Your task to perform on an android device: Go to display settings Image 0: 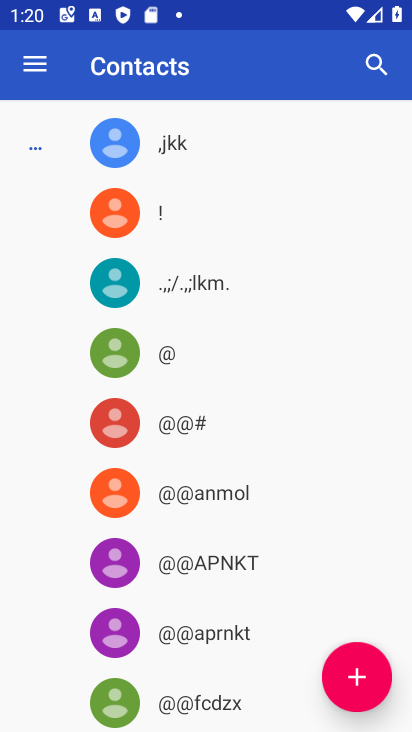
Step 0: press home button
Your task to perform on an android device: Go to display settings Image 1: 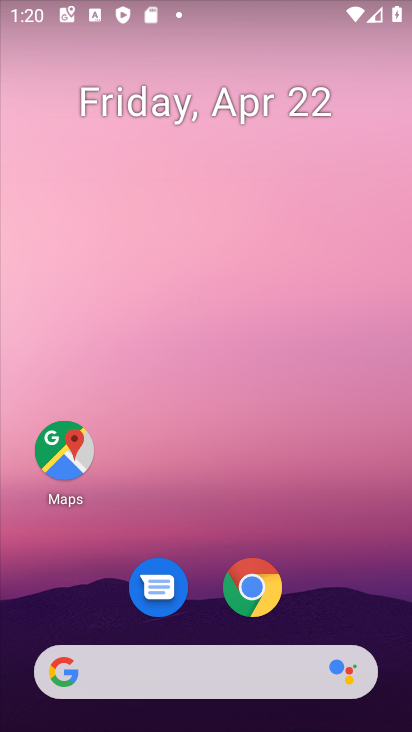
Step 1: drag from (195, 561) to (213, 277)
Your task to perform on an android device: Go to display settings Image 2: 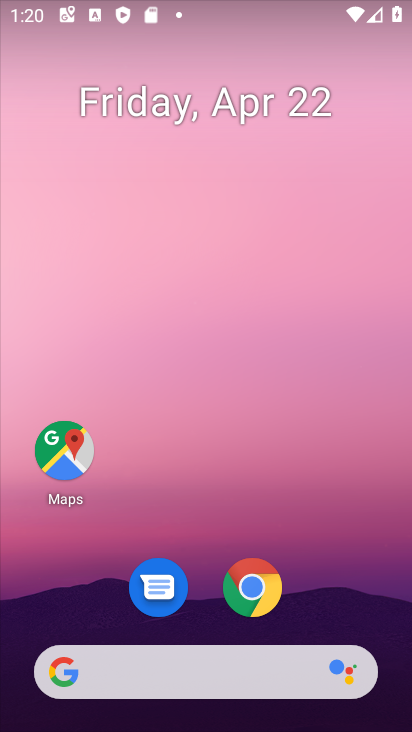
Step 2: drag from (209, 581) to (261, 224)
Your task to perform on an android device: Go to display settings Image 3: 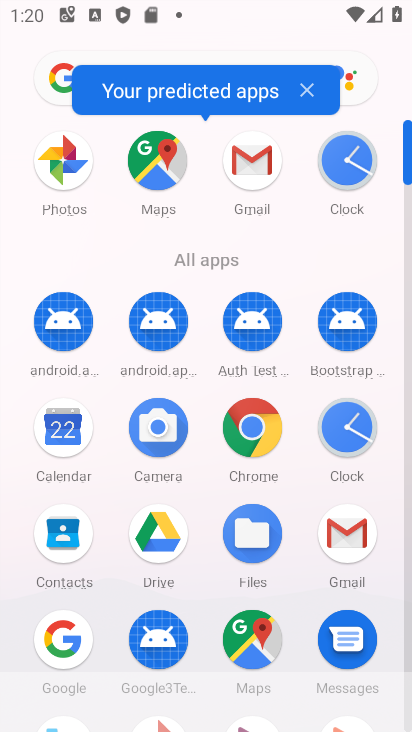
Step 3: drag from (206, 673) to (243, 324)
Your task to perform on an android device: Go to display settings Image 4: 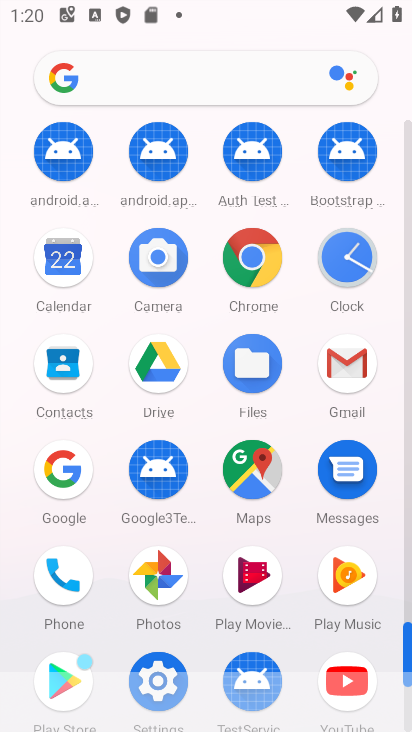
Step 4: click (148, 666)
Your task to perform on an android device: Go to display settings Image 5: 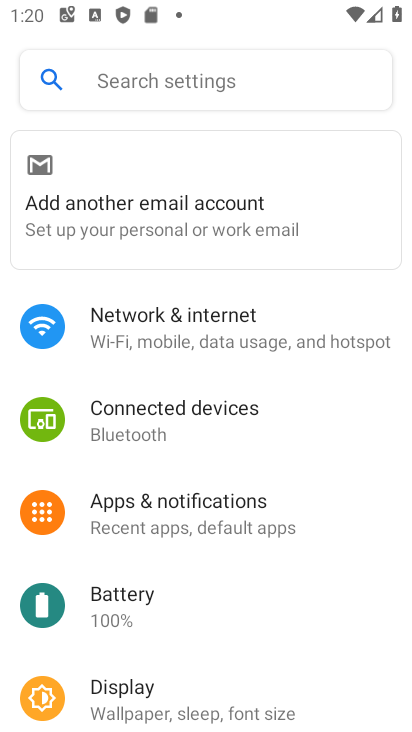
Step 5: click (171, 700)
Your task to perform on an android device: Go to display settings Image 6: 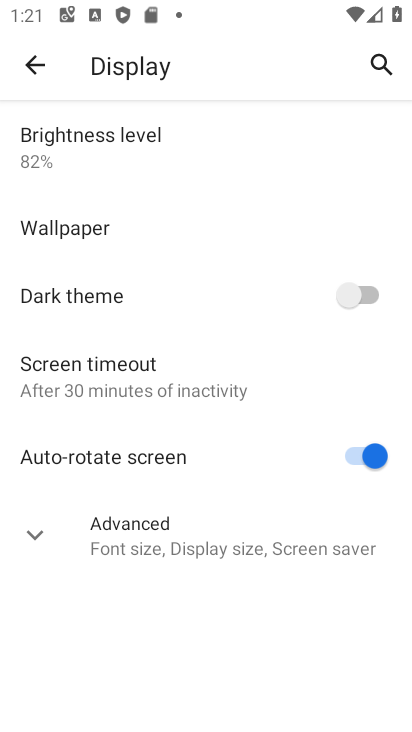
Step 6: task complete